Your task to perform on an android device: Open location settings Image 0: 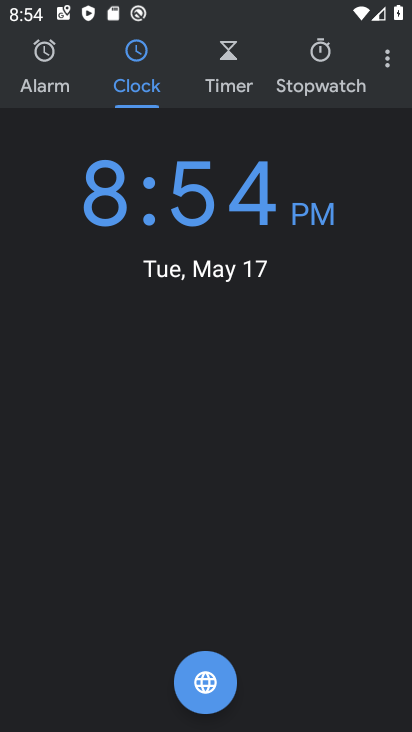
Step 0: press home button
Your task to perform on an android device: Open location settings Image 1: 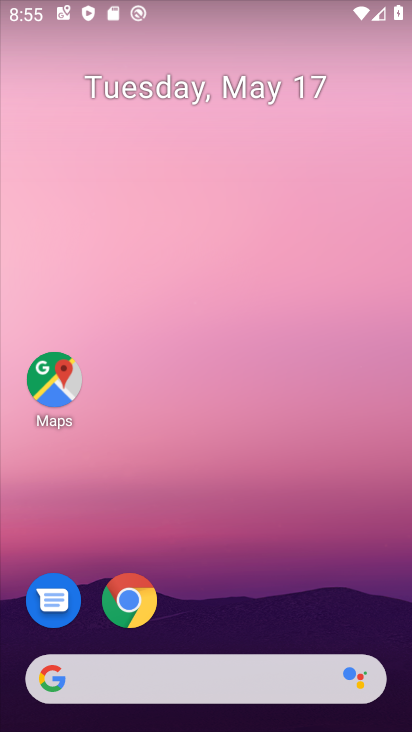
Step 1: drag from (256, 600) to (221, 143)
Your task to perform on an android device: Open location settings Image 2: 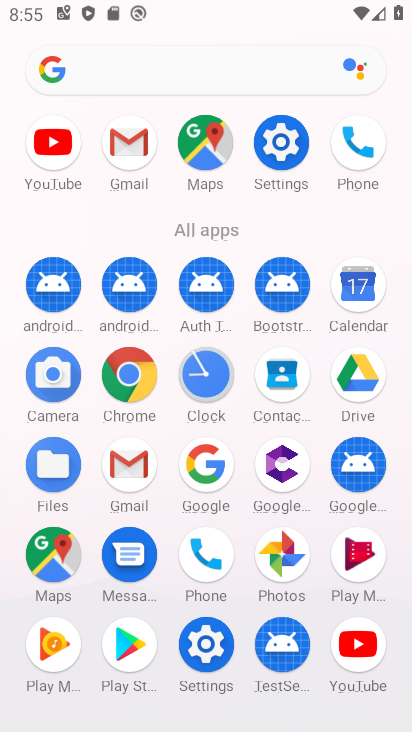
Step 2: click (202, 660)
Your task to perform on an android device: Open location settings Image 3: 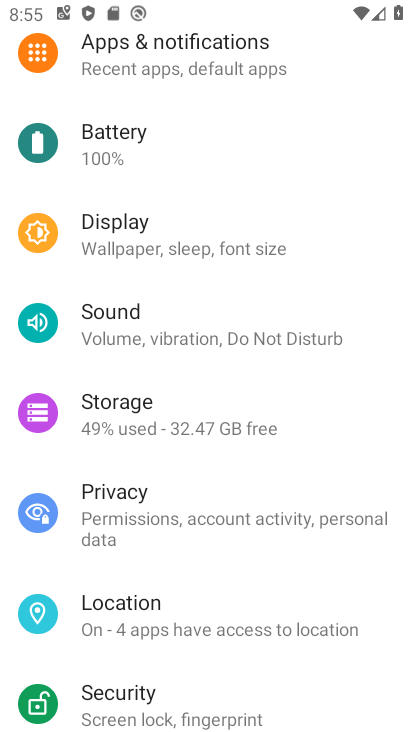
Step 3: click (194, 623)
Your task to perform on an android device: Open location settings Image 4: 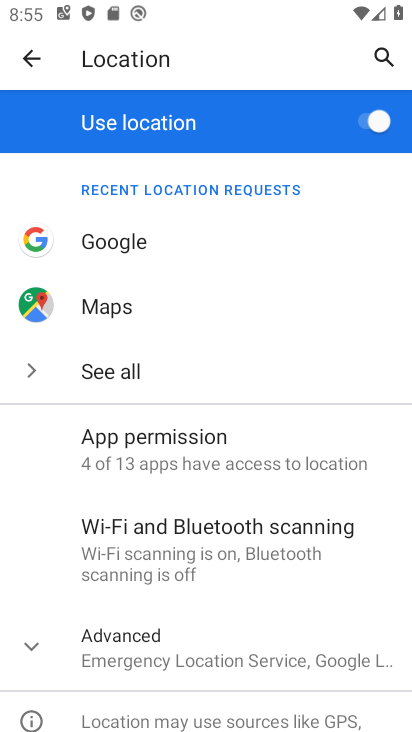
Step 4: task complete